Your task to perform on an android device: Search for beats solo 3 on costco, select the first entry, and add it to the cart. Image 0: 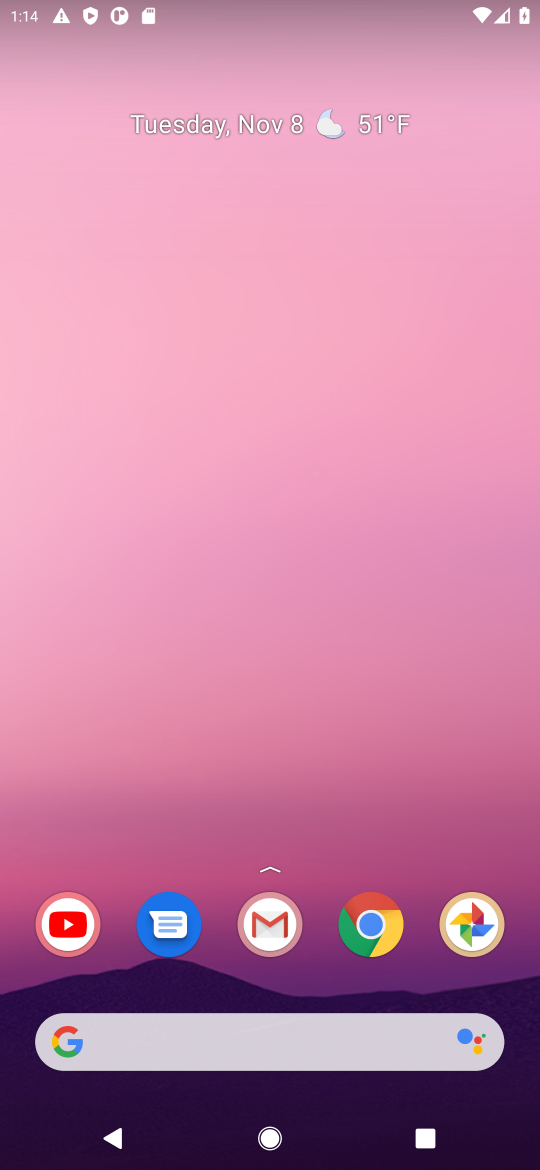
Step 0: click (371, 947)
Your task to perform on an android device: Search for beats solo 3 on costco, select the first entry, and add it to the cart. Image 1: 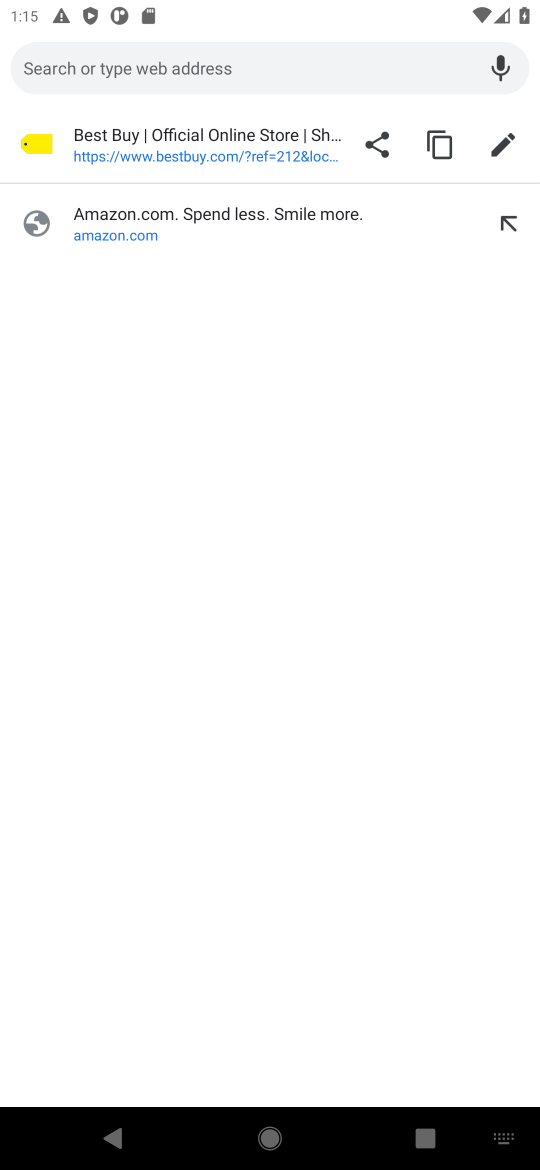
Step 1: type "costco"
Your task to perform on an android device: Search for beats solo 3 on costco, select the first entry, and add it to the cart. Image 2: 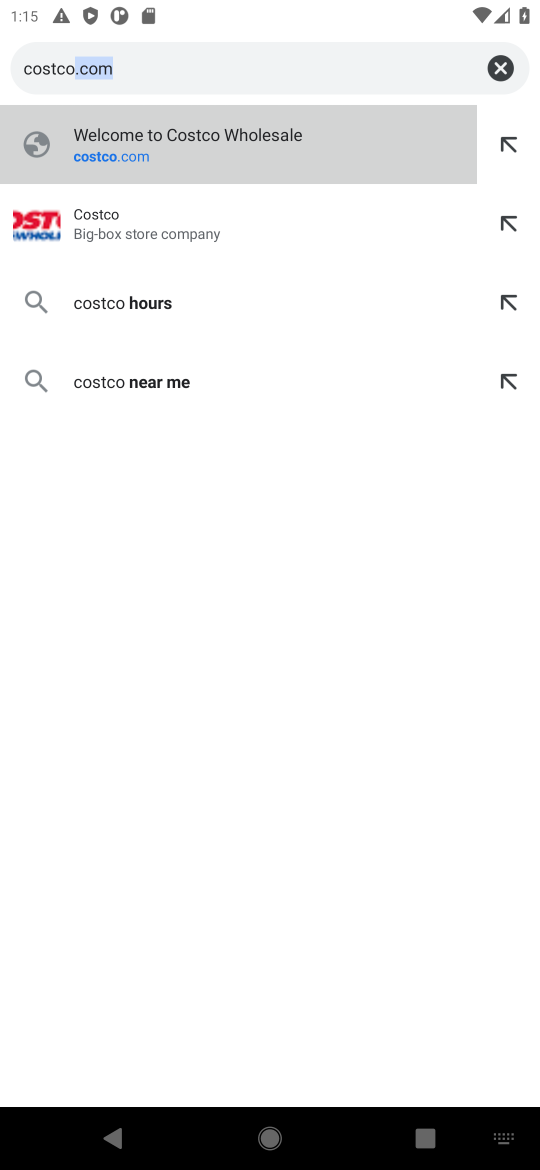
Step 2: click (274, 170)
Your task to perform on an android device: Search for beats solo 3 on costco, select the first entry, and add it to the cart. Image 3: 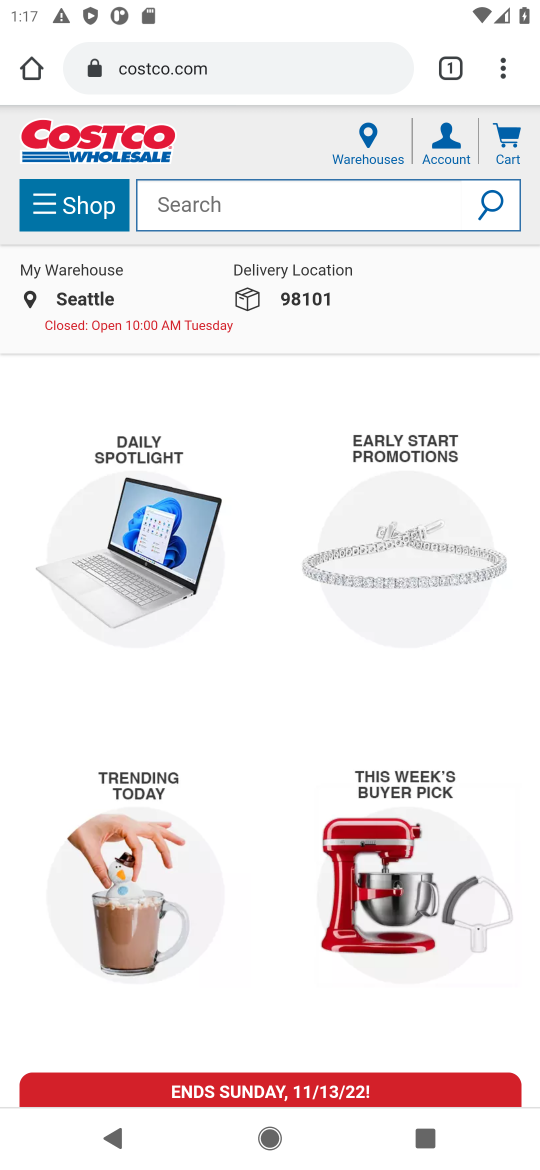
Step 3: click (235, 173)
Your task to perform on an android device: Search for beats solo 3 on costco, select the first entry, and add it to the cart. Image 4: 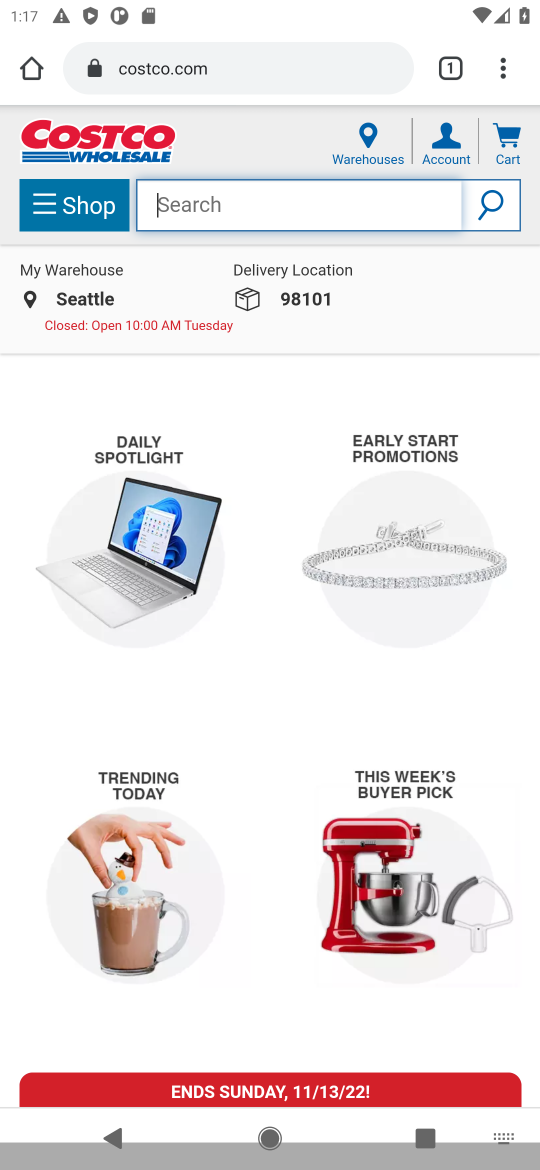
Step 4: click (244, 201)
Your task to perform on an android device: Search for beats solo 3 on costco, select the first entry, and add it to the cart. Image 5: 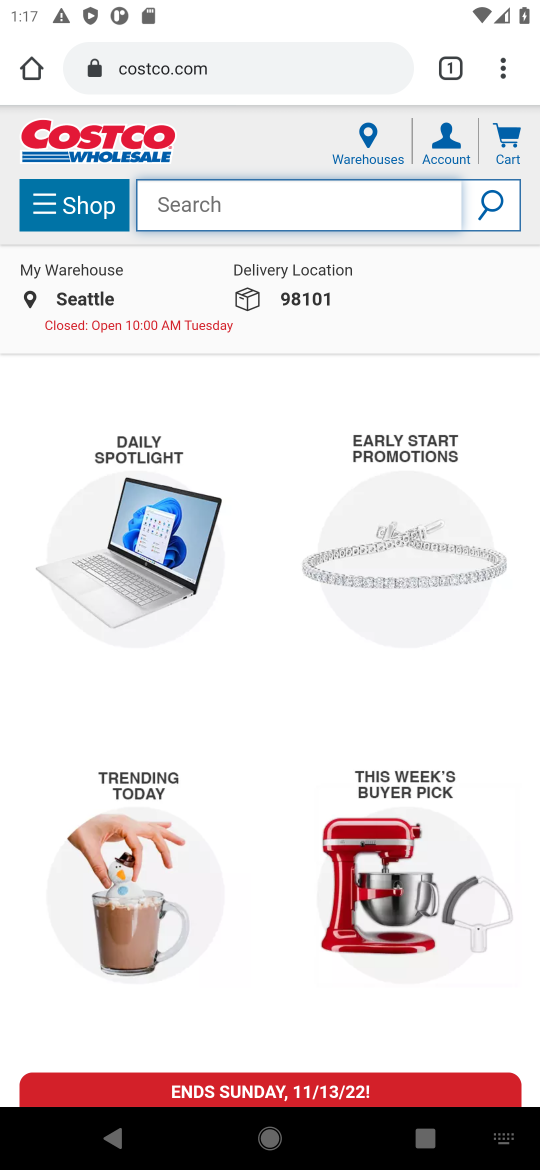
Step 5: click (244, 201)
Your task to perform on an android device: Search for beats solo 3 on costco, select the first entry, and add it to the cart. Image 6: 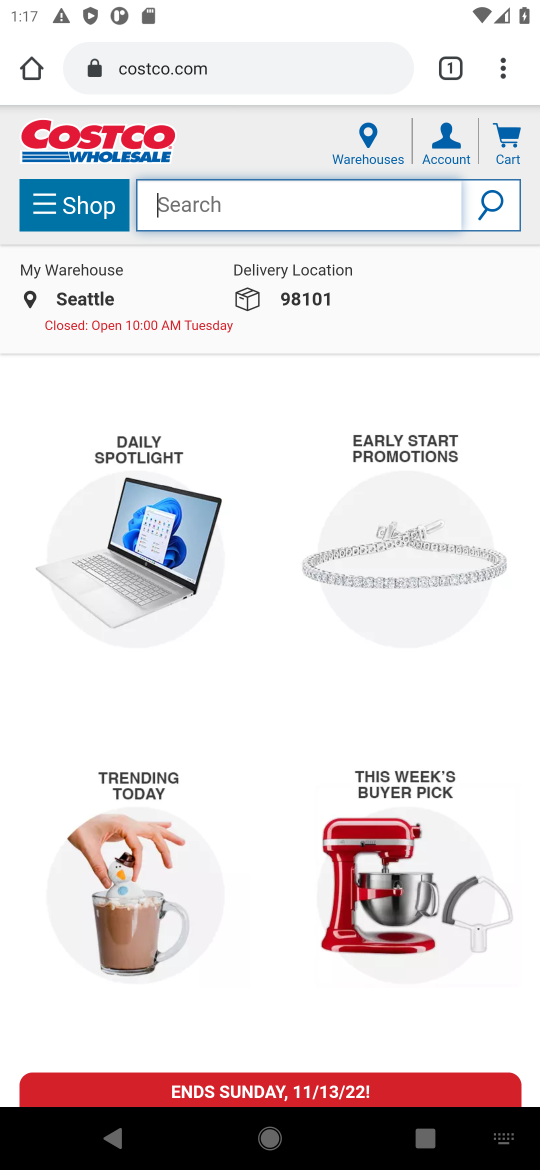
Step 6: type "beats solo 3"
Your task to perform on an android device: Search for beats solo 3 on costco, select the first entry, and add it to the cart. Image 7: 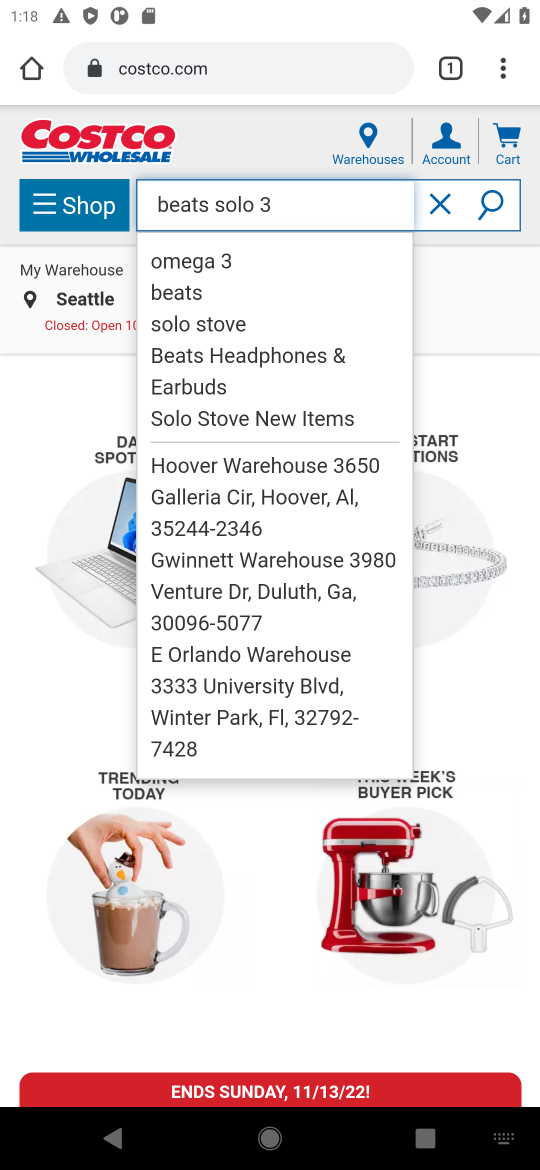
Step 7: click (502, 203)
Your task to perform on an android device: Search for beats solo 3 on costco, select the first entry, and add it to the cart. Image 8: 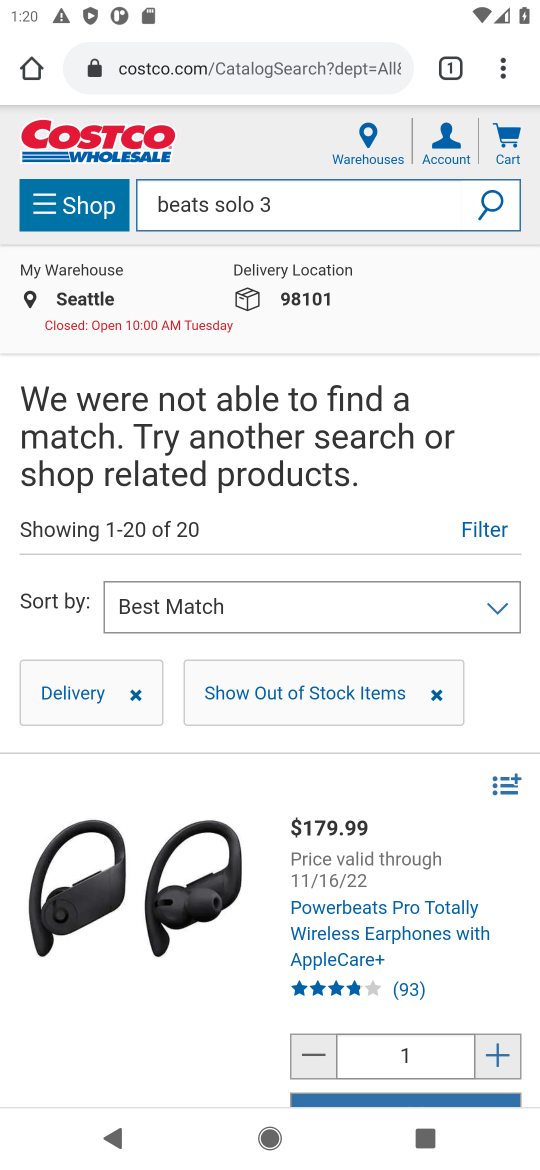
Step 8: task complete